Your task to perform on an android device: What is the recent news? Image 0: 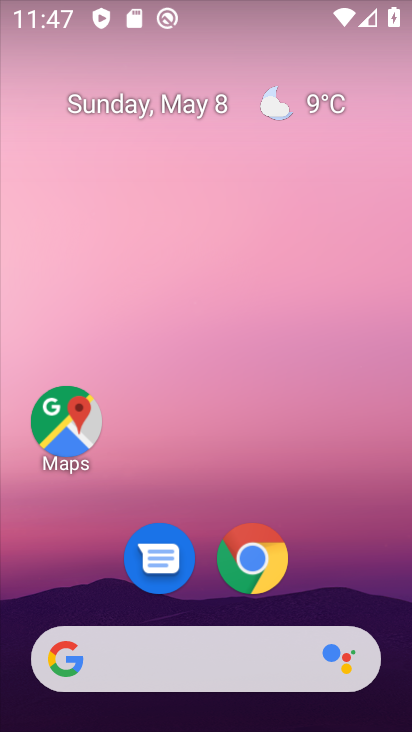
Step 0: drag from (228, 648) to (219, 215)
Your task to perform on an android device: What is the recent news? Image 1: 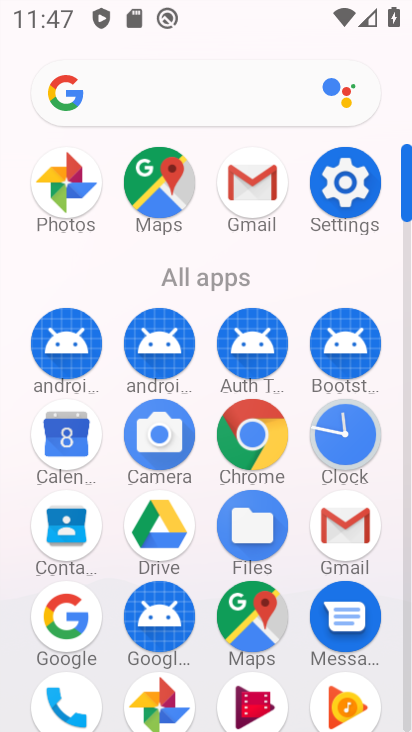
Step 1: click (59, 613)
Your task to perform on an android device: What is the recent news? Image 2: 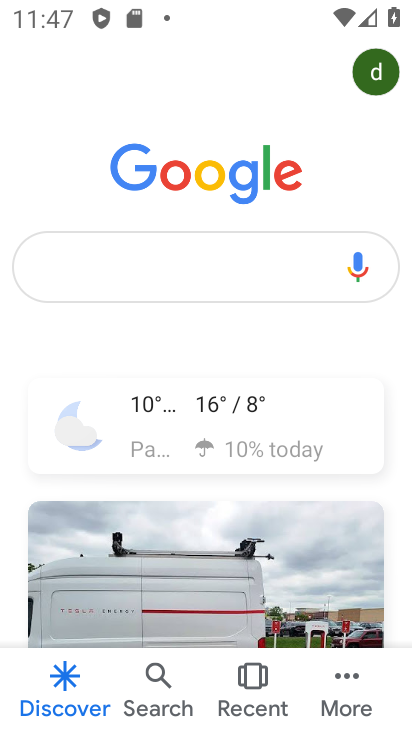
Step 2: task complete